Your task to perform on an android device: Open CNN.com Image 0: 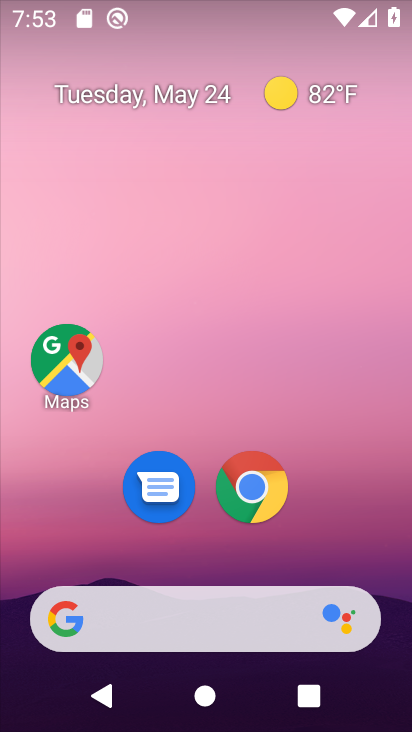
Step 0: drag from (359, 410) to (343, 129)
Your task to perform on an android device: Open CNN.com Image 1: 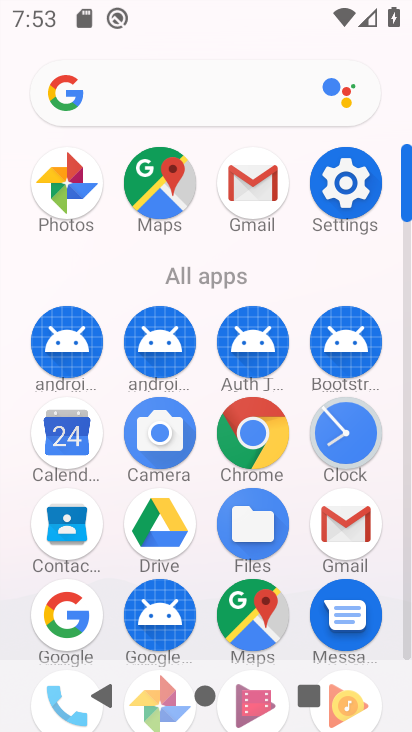
Step 1: click (257, 446)
Your task to perform on an android device: Open CNN.com Image 2: 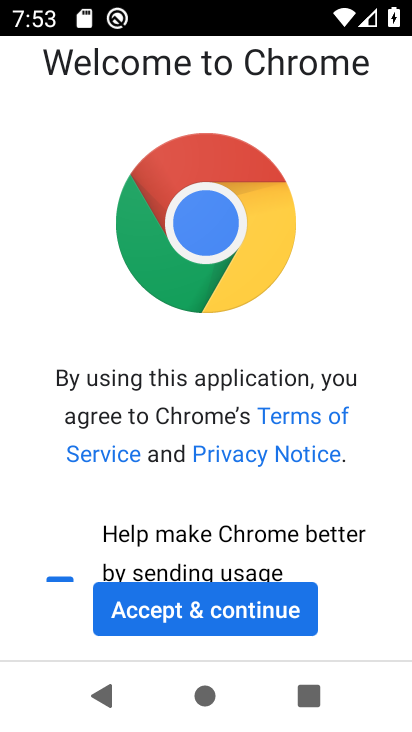
Step 2: click (252, 618)
Your task to perform on an android device: Open CNN.com Image 3: 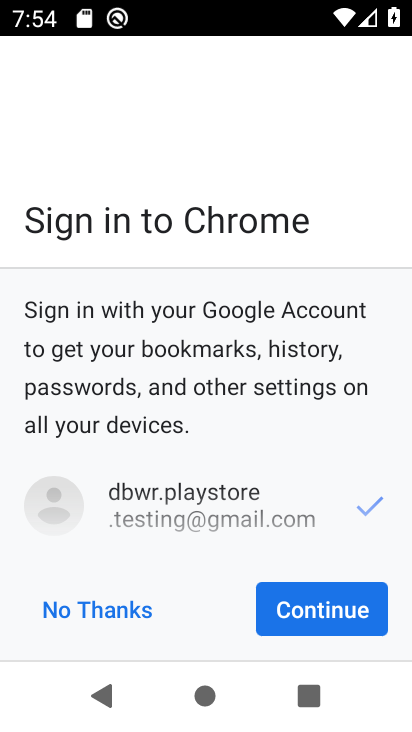
Step 3: click (290, 605)
Your task to perform on an android device: Open CNN.com Image 4: 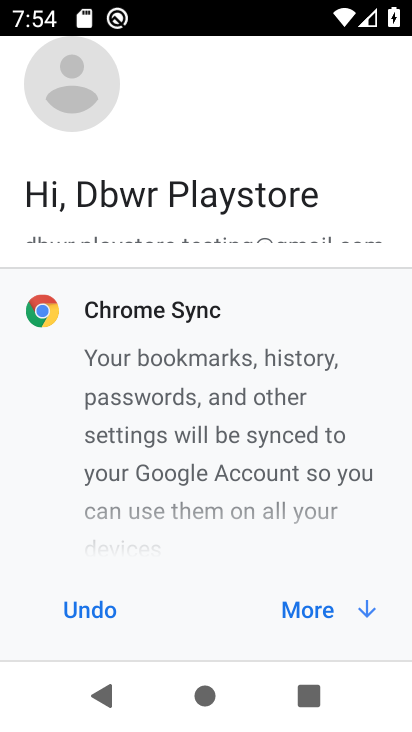
Step 4: click (291, 603)
Your task to perform on an android device: Open CNN.com Image 5: 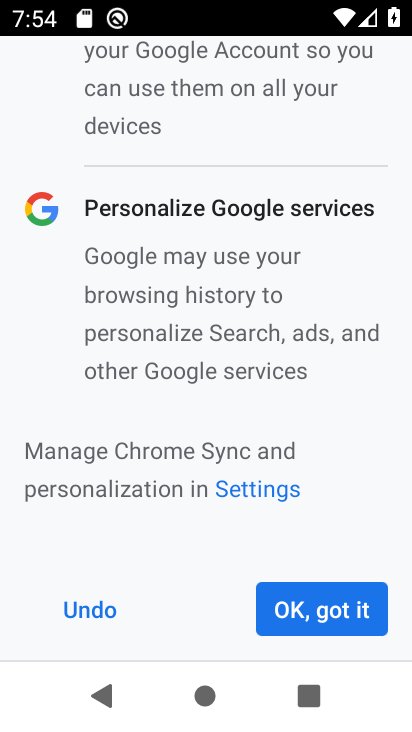
Step 5: click (291, 603)
Your task to perform on an android device: Open CNN.com Image 6: 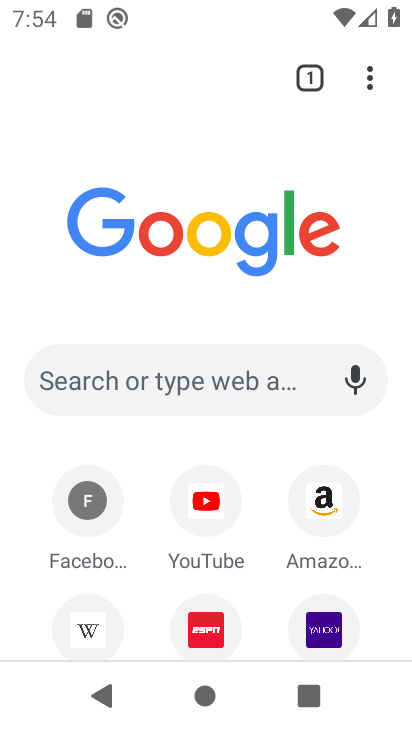
Step 6: click (206, 392)
Your task to perform on an android device: Open CNN.com Image 7: 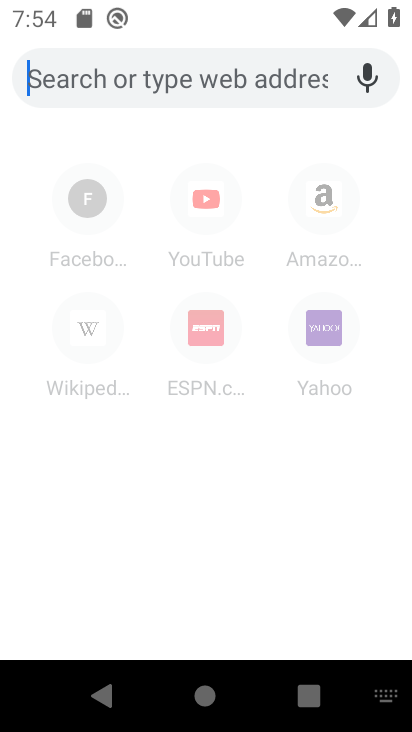
Step 7: type "cnn.com"
Your task to perform on an android device: Open CNN.com Image 8: 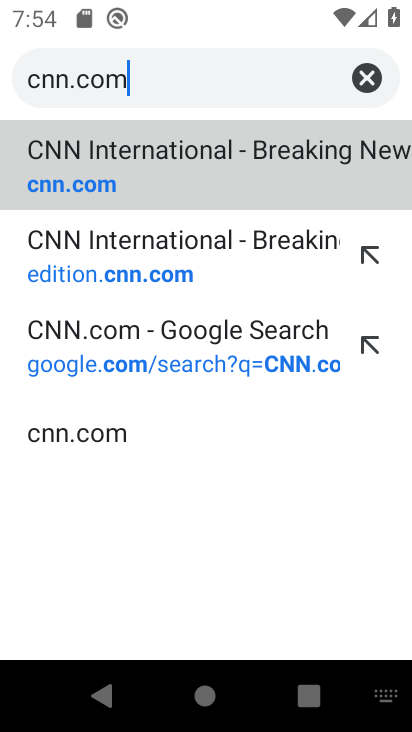
Step 8: click (185, 152)
Your task to perform on an android device: Open CNN.com Image 9: 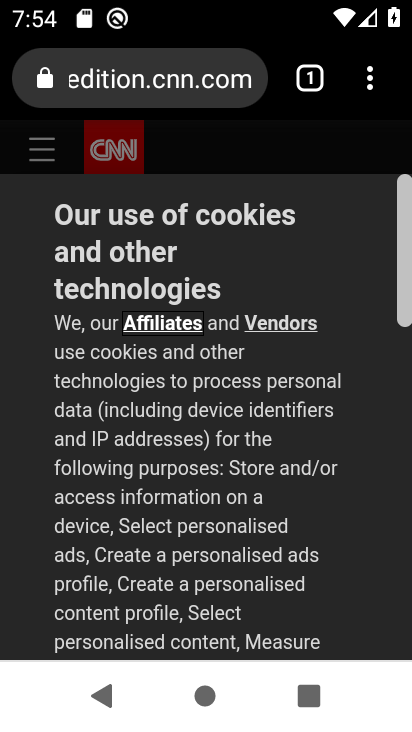
Step 9: task complete